Your task to perform on an android device: What's the weather going to be tomorrow? Image 0: 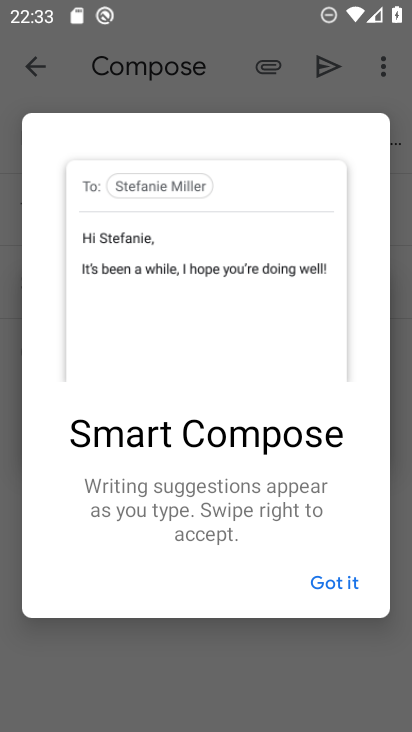
Step 0: press home button
Your task to perform on an android device: What's the weather going to be tomorrow? Image 1: 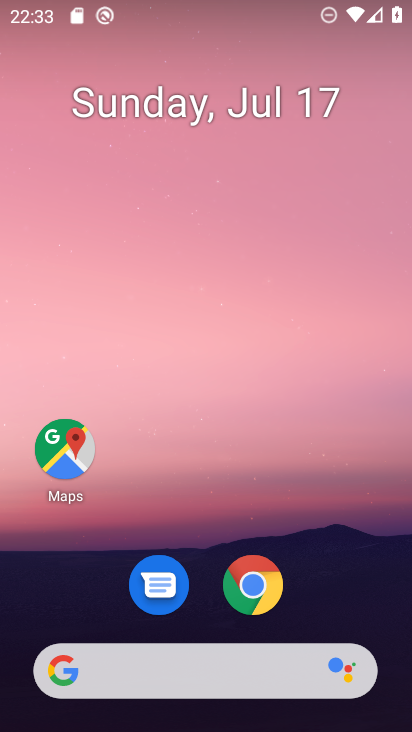
Step 1: click (198, 664)
Your task to perform on an android device: What's the weather going to be tomorrow? Image 2: 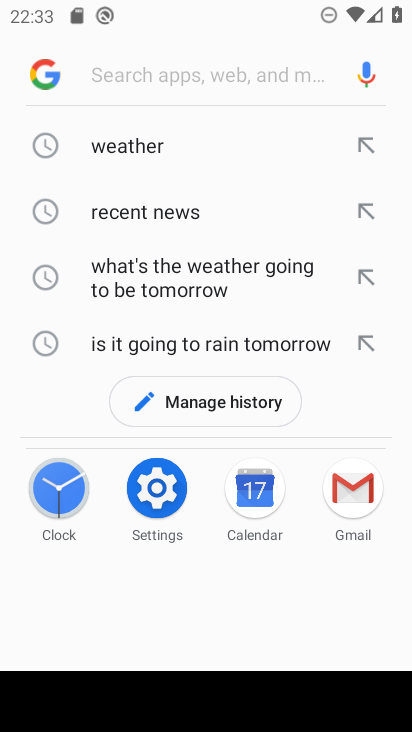
Step 2: click (218, 281)
Your task to perform on an android device: What's the weather going to be tomorrow? Image 3: 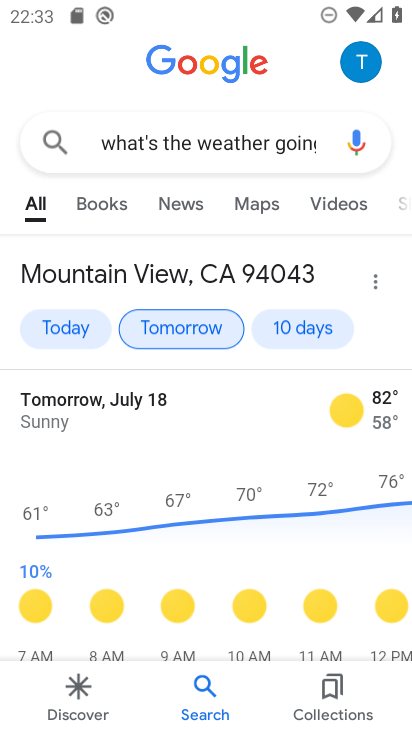
Step 3: task complete